Your task to perform on an android device: find snoozed emails in the gmail app Image 0: 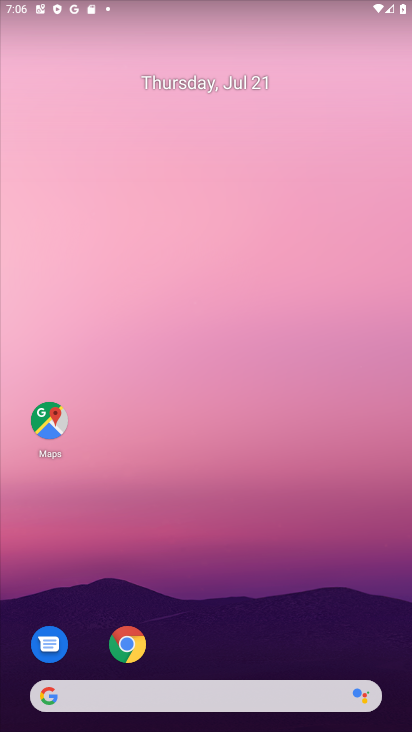
Step 0: drag from (253, 591) to (248, 227)
Your task to perform on an android device: find snoozed emails in the gmail app Image 1: 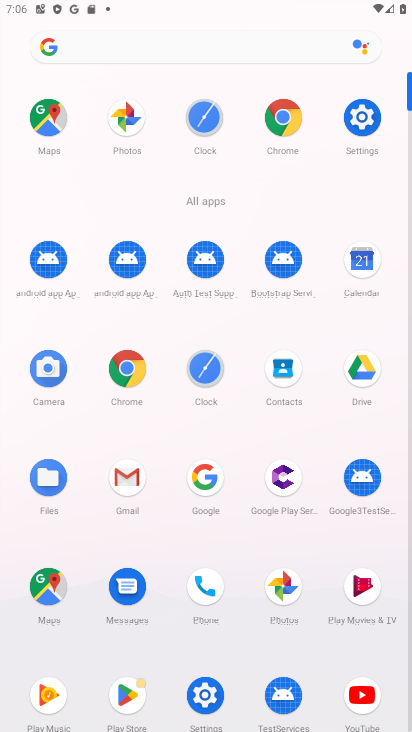
Step 1: click (137, 486)
Your task to perform on an android device: find snoozed emails in the gmail app Image 2: 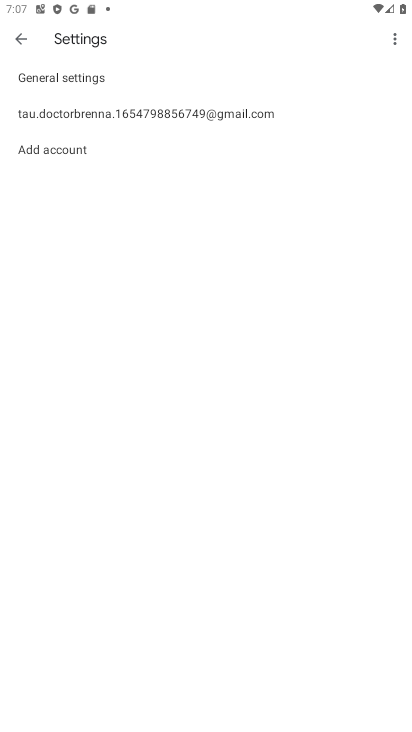
Step 2: click (17, 35)
Your task to perform on an android device: find snoozed emails in the gmail app Image 3: 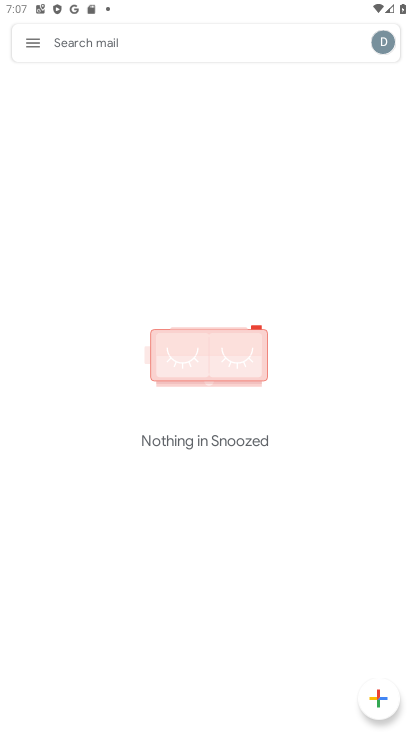
Step 3: click (38, 44)
Your task to perform on an android device: find snoozed emails in the gmail app Image 4: 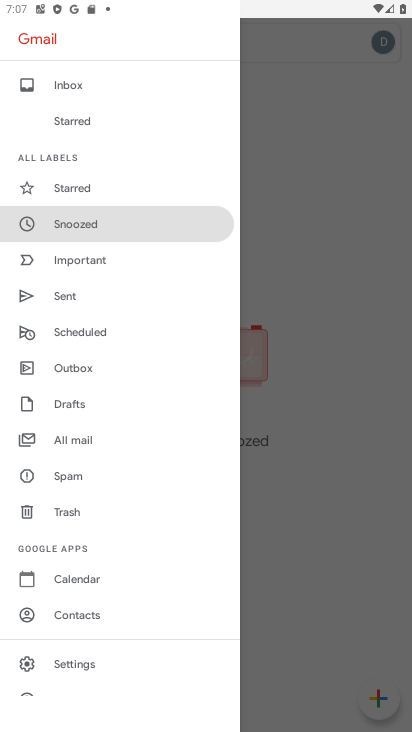
Step 4: click (84, 222)
Your task to perform on an android device: find snoozed emails in the gmail app Image 5: 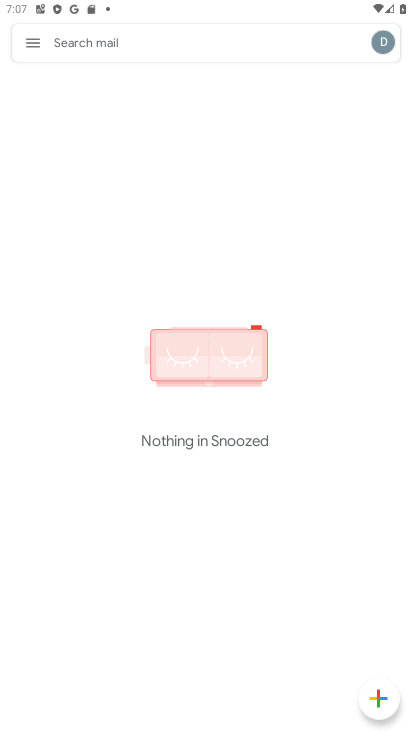
Step 5: task complete